Your task to perform on an android device: set the stopwatch Image 0: 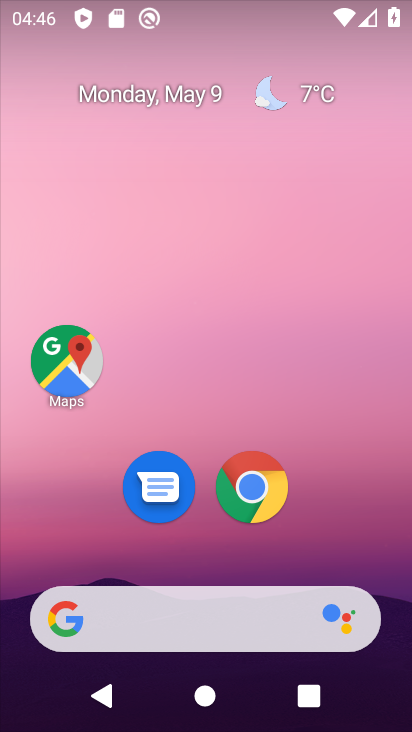
Step 0: drag from (196, 546) to (207, 63)
Your task to perform on an android device: set the stopwatch Image 1: 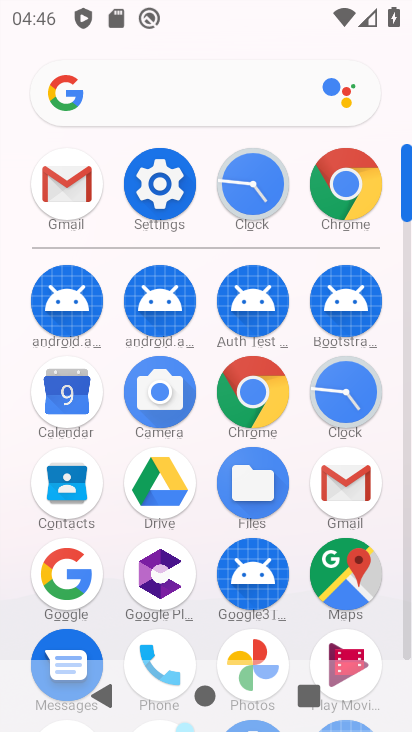
Step 1: click (340, 392)
Your task to perform on an android device: set the stopwatch Image 2: 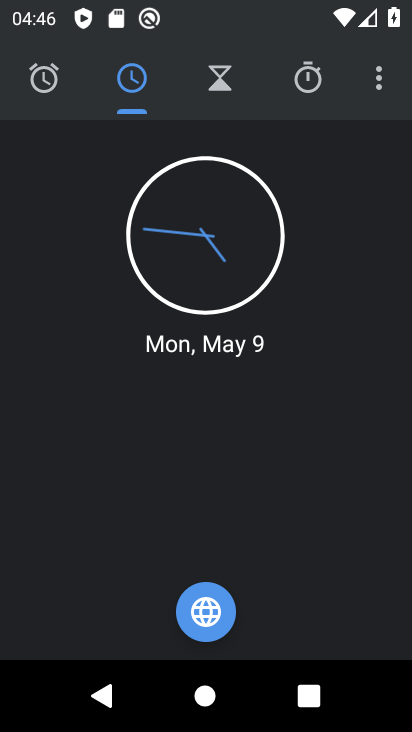
Step 2: click (296, 86)
Your task to perform on an android device: set the stopwatch Image 3: 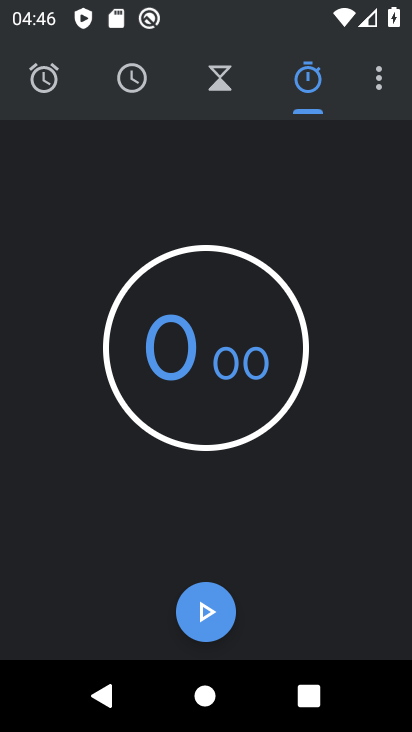
Step 3: click (193, 615)
Your task to perform on an android device: set the stopwatch Image 4: 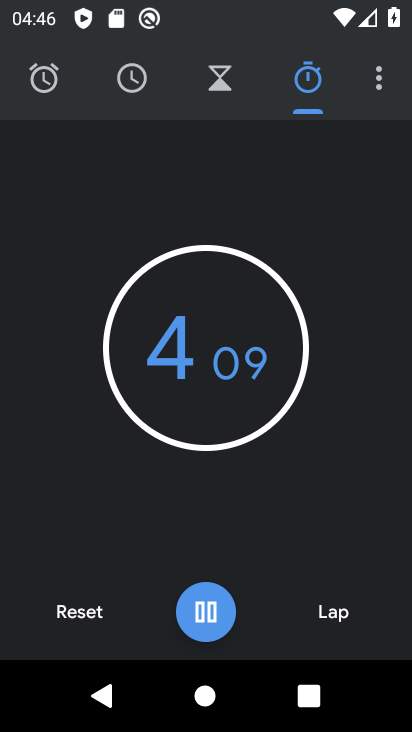
Step 4: task complete